Your task to perform on an android device: Go to Google maps Image 0: 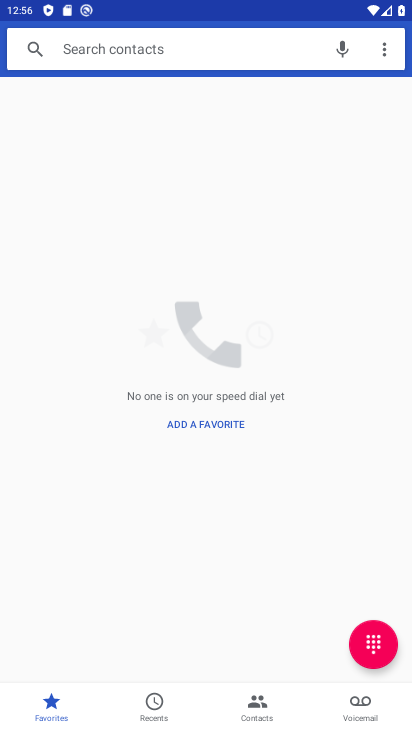
Step 0: press home button
Your task to perform on an android device: Go to Google maps Image 1: 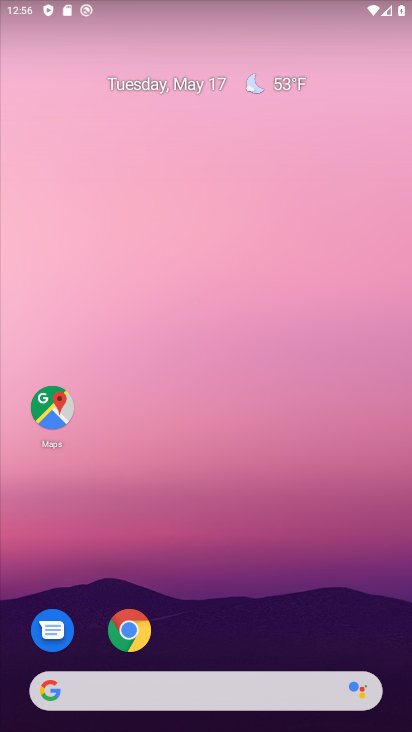
Step 1: drag from (169, 676) to (194, 310)
Your task to perform on an android device: Go to Google maps Image 2: 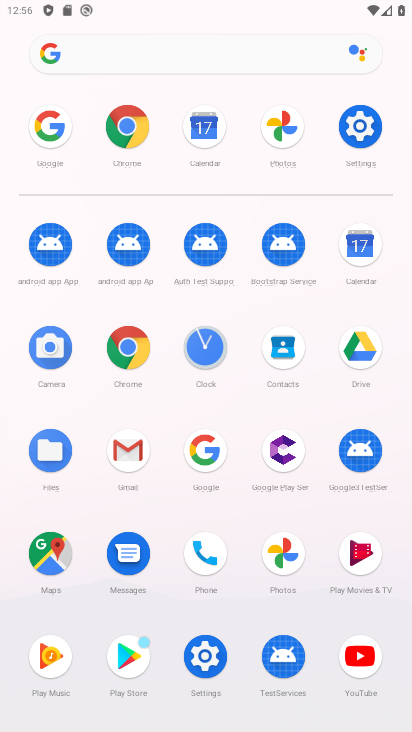
Step 2: click (43, 573)
Your task to perform on an android device: Go to Google maps Image 3: 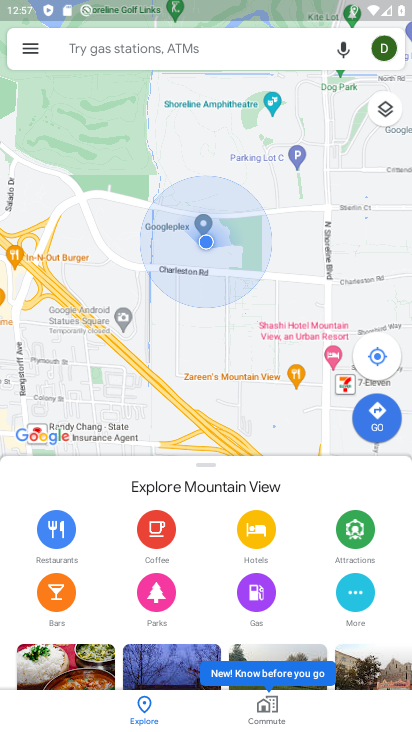
Step 3: task complete